Your task to perform on an android device: turn on javascript in the chrome app Image 0: 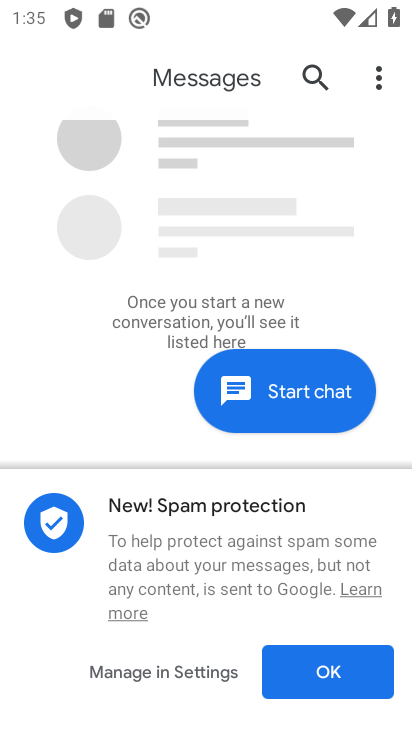
Step 0: press home button
Your task to perform on an android device: turn on javascript in the chrome app Image 1: 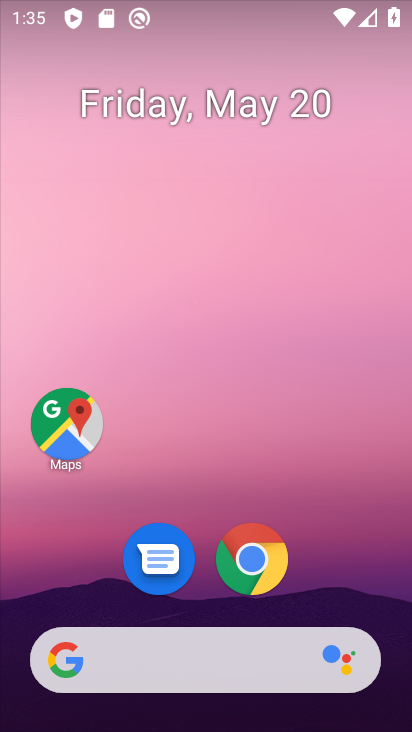
Step 1: click (236, 567)
Your task to perform on an android device: turn on javascript in the chrome app Image 2: 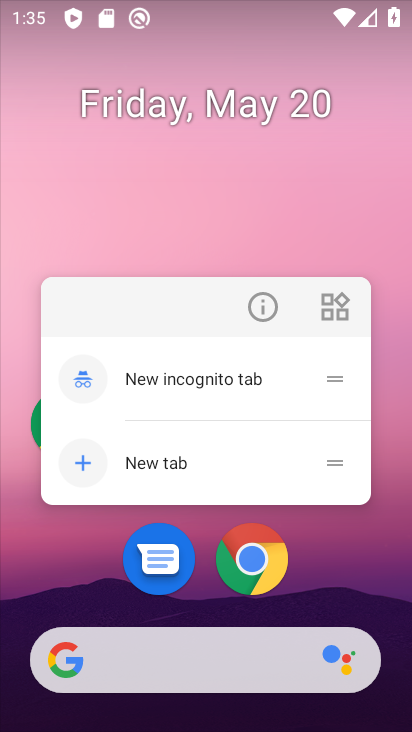
Step 2: click (264, 555)
Your task to perform on an android device: turn on javascript in the chrome app Image 3: 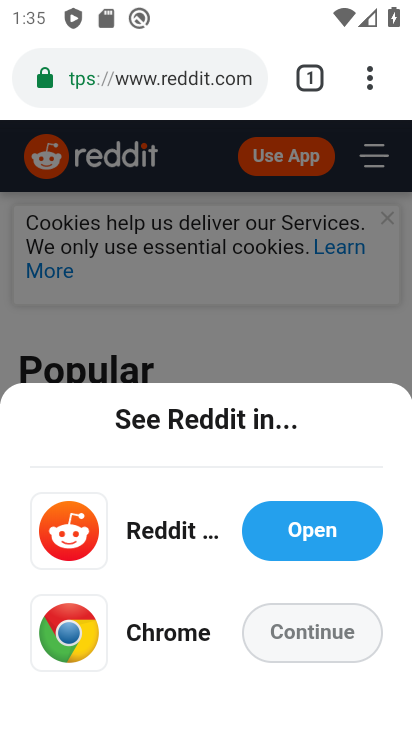
Step 3: click (371, 85)
Your task to perform on an android device: turn on javascript in the chrome app Image 4: 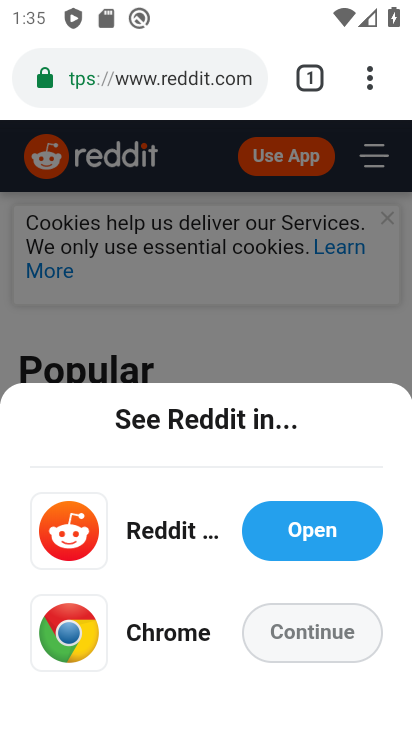
Step 4: click (368, 82)
Your task to perform on an android device: turn on javascript in the chrome app Image 5: 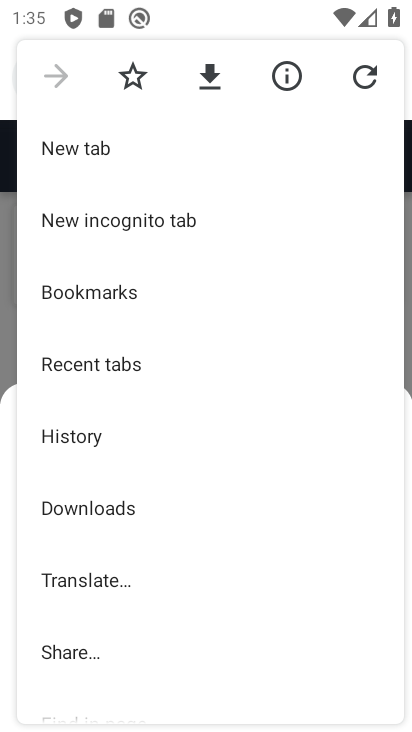
Step 5: drag from (247, 645) to (193, 223)
Your task to perform on an android device: turn on javascript in the chrome app Image 6: 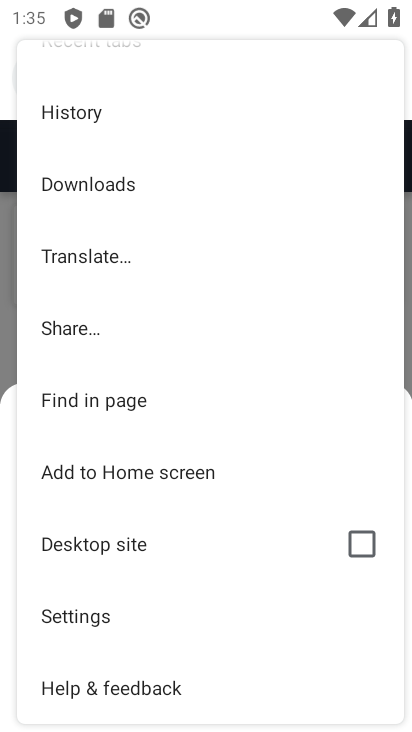
Step 6: click (132, 600)
Your task to perform on an android device: turn on javascript in the chrome app Image 7: 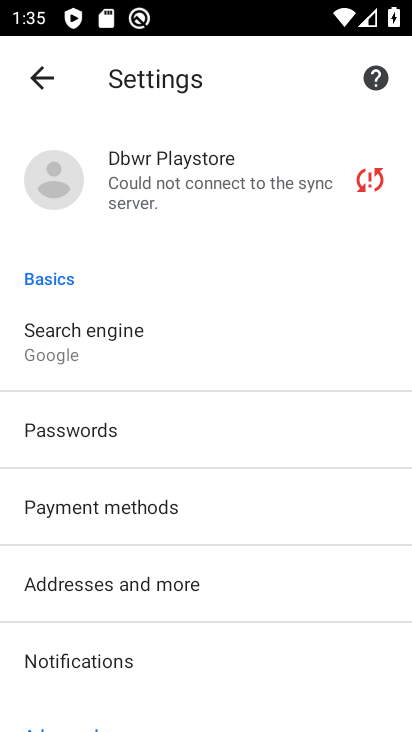
Step 7: drag from (174, 619) to (172, 274)
Your task to perform on an android device: turn on javascript in the chrome app Image 8: 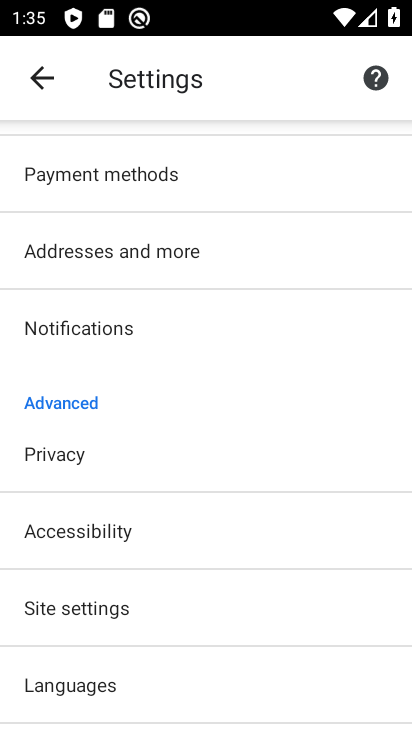
Step 8: click (97, 601)
Your task to perform on an android device: turn on javascript in the chrome app Image 9: 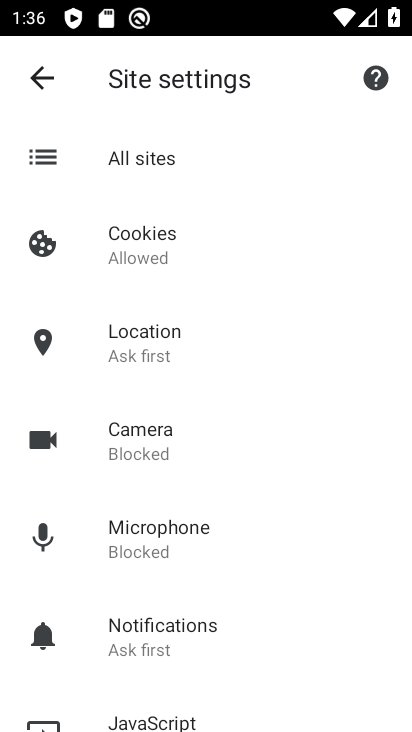
Step 9: drag from (165, 702) to (166, 516)
Your task to perform on an android device: turn on javascript in the chrome app Image 10: 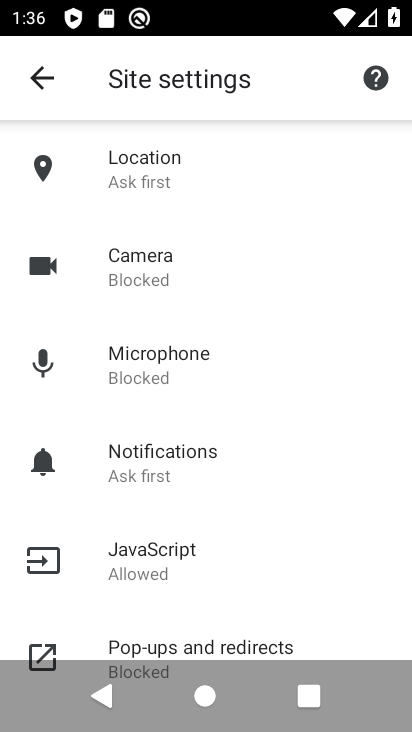
Step 10: click (138, 555)
Your task to perform on an android device: turn on javascript in the chrome app Image 11: 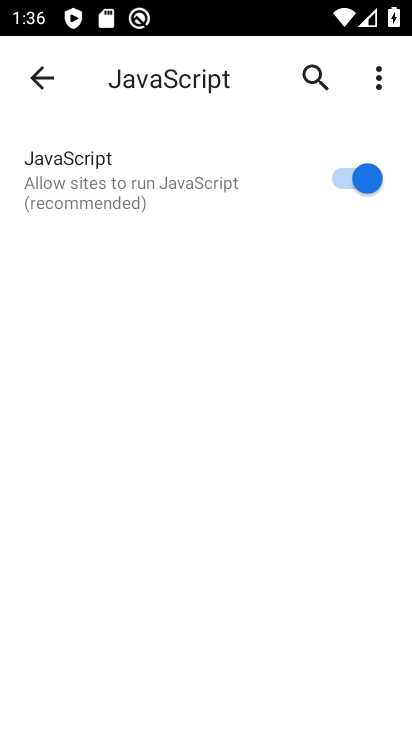
Step 11: task complete